Your task to perform on an android device: uninstall "VLC for Android" Image 0: 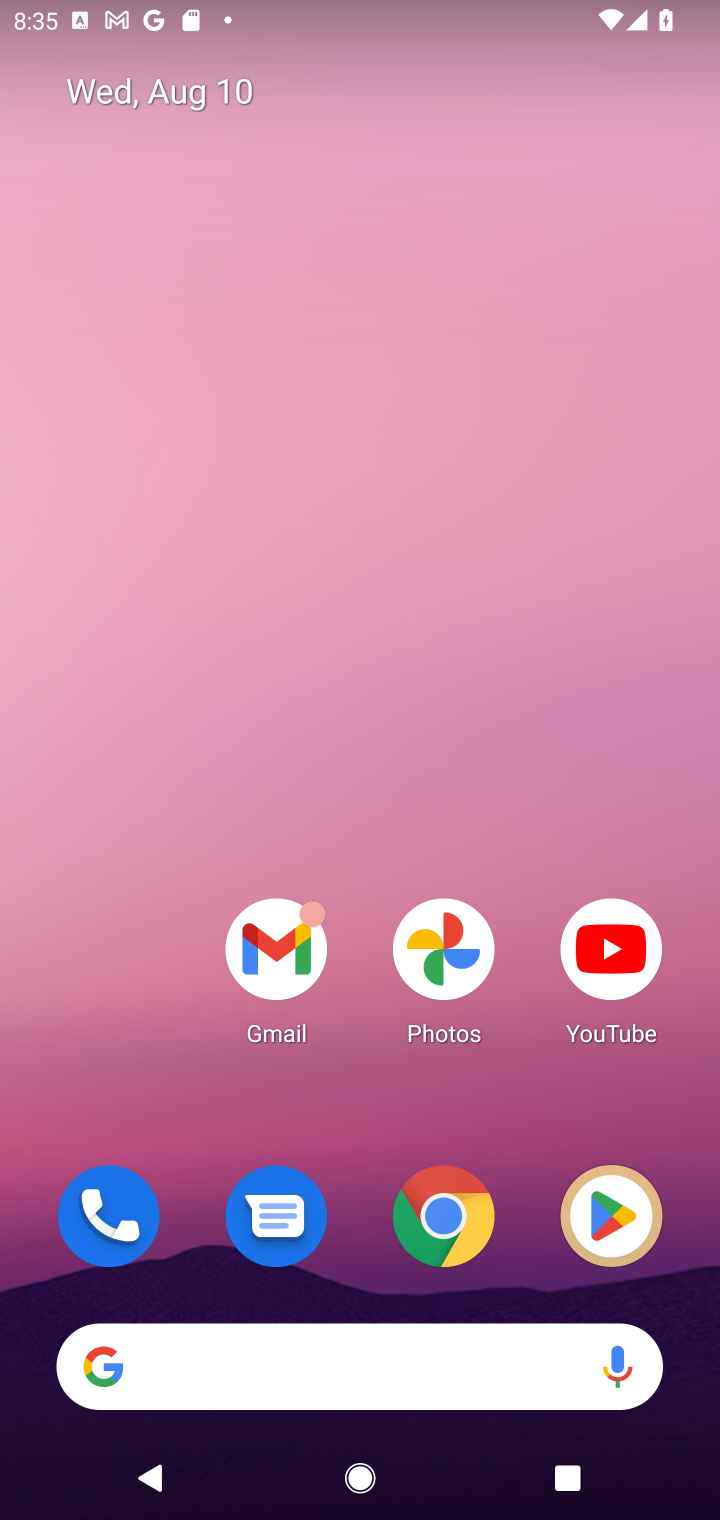
Step 0: click (600, 1224)
Your task to perform on an android device: uninstall "VLC for Android" Image 1: 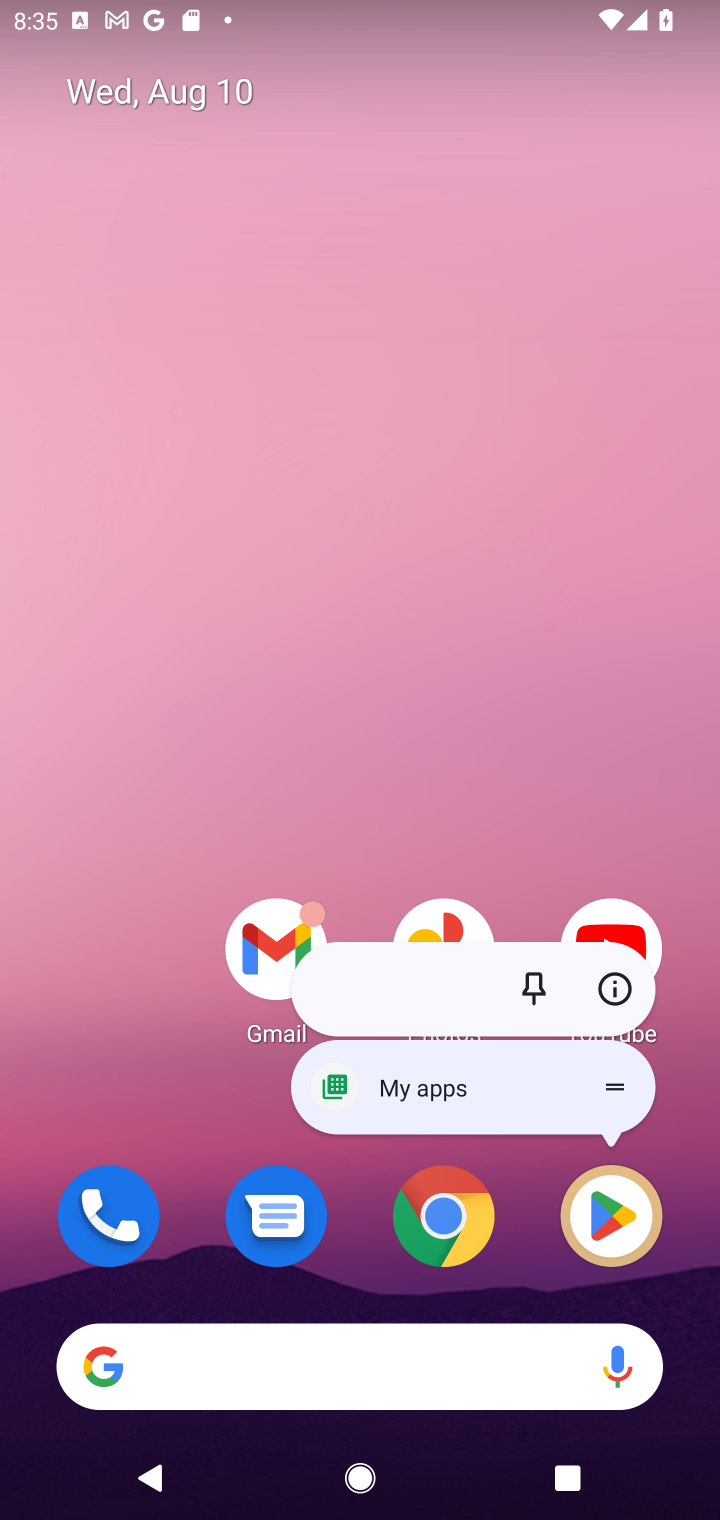
Step 1: click (606, 1232)
Your task to perform on an android device: uninstall "VLC for Android" Image 2: 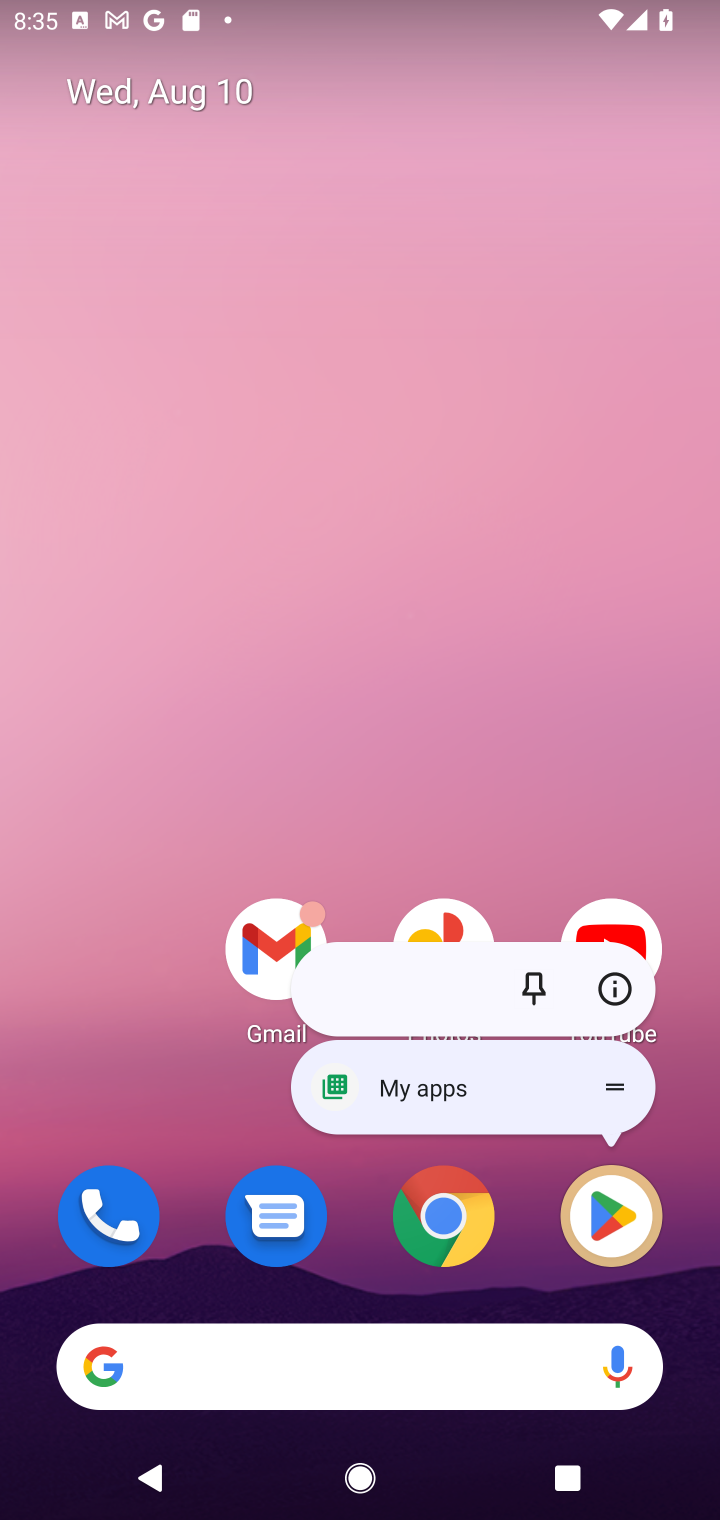
Step 2: click (606, 1232)
Your task to perform on an android device: uninstall "VLC for Android" Image 3: 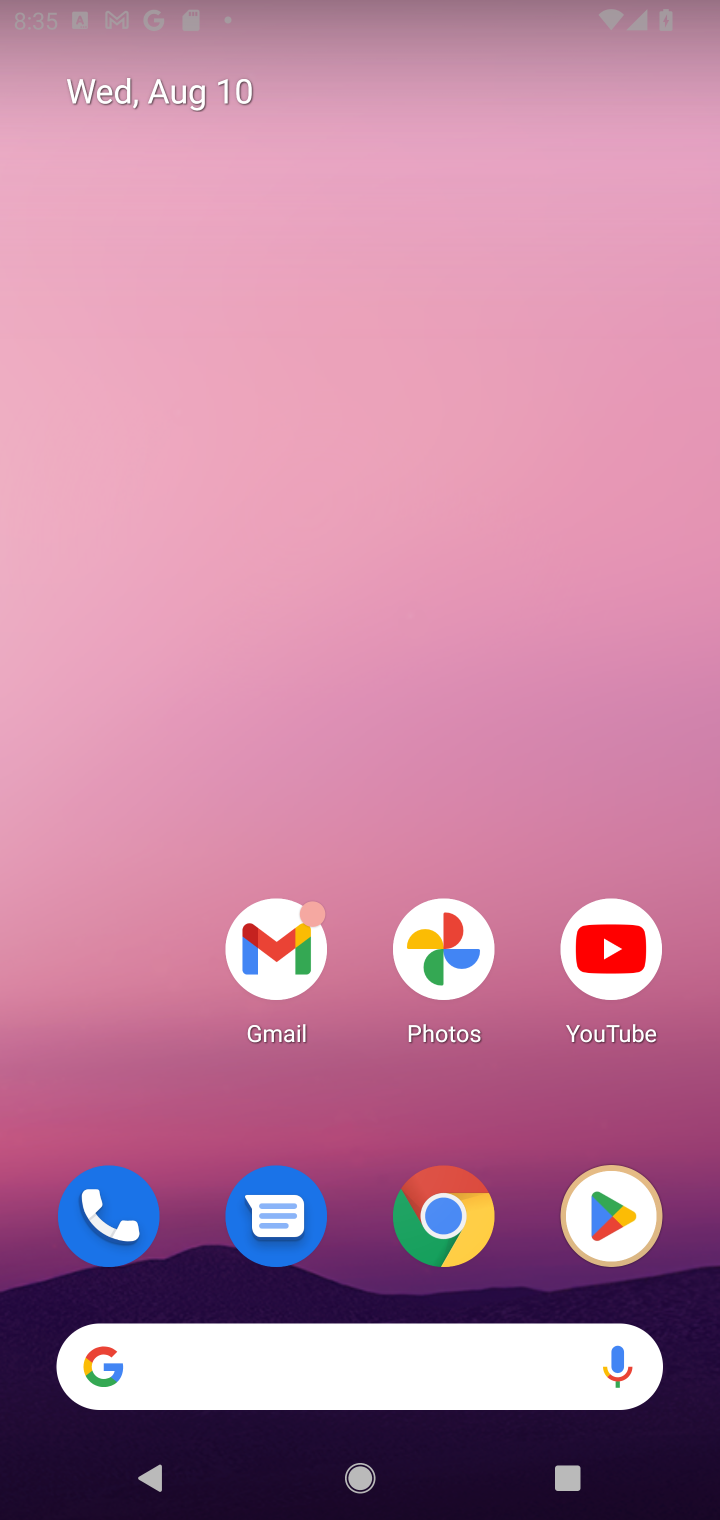
Step 3: click (606, 1232)
Your task to perform on an android device: uninstall "VLC for Android" Image 4: 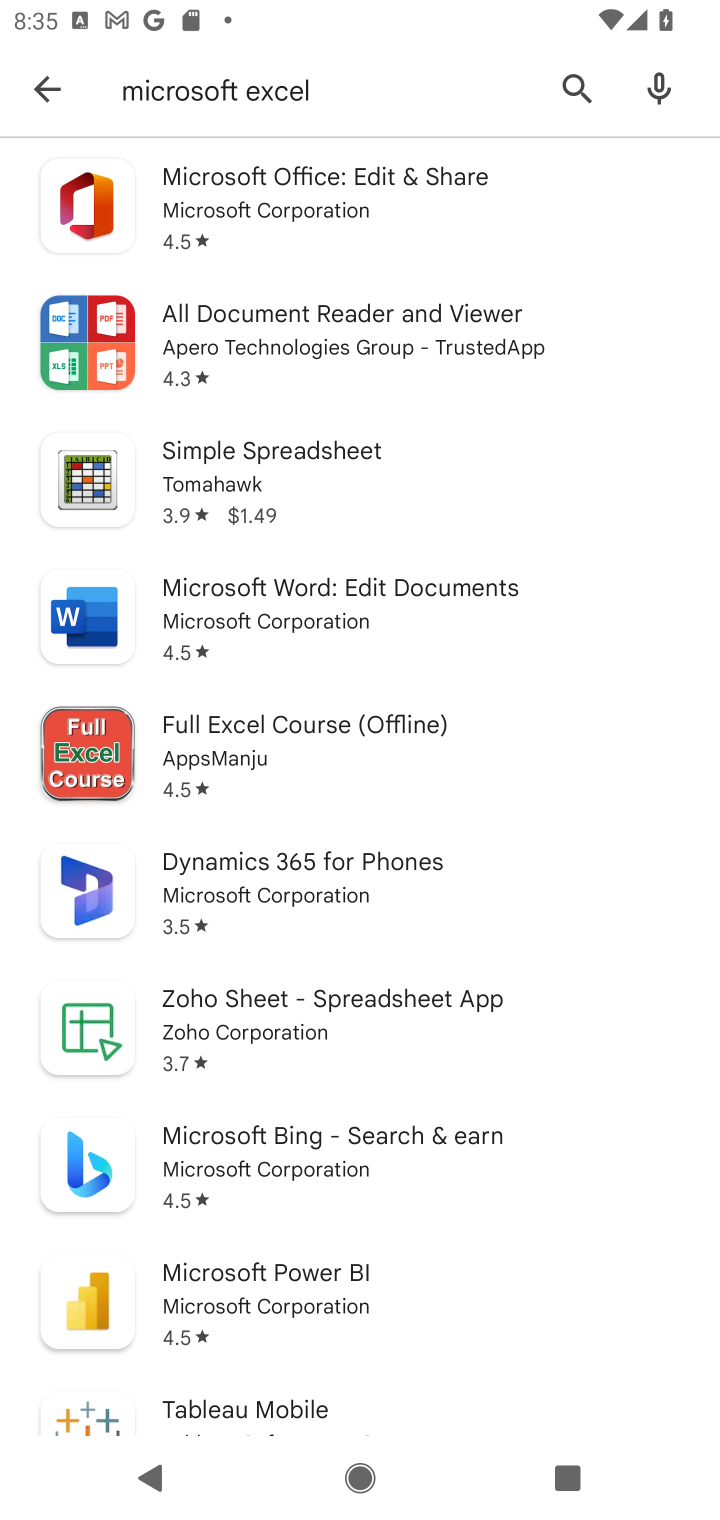
Step 4: click (41, 88)
Your task to perform on an android device: uninstall "VLC for Android" Image 5: 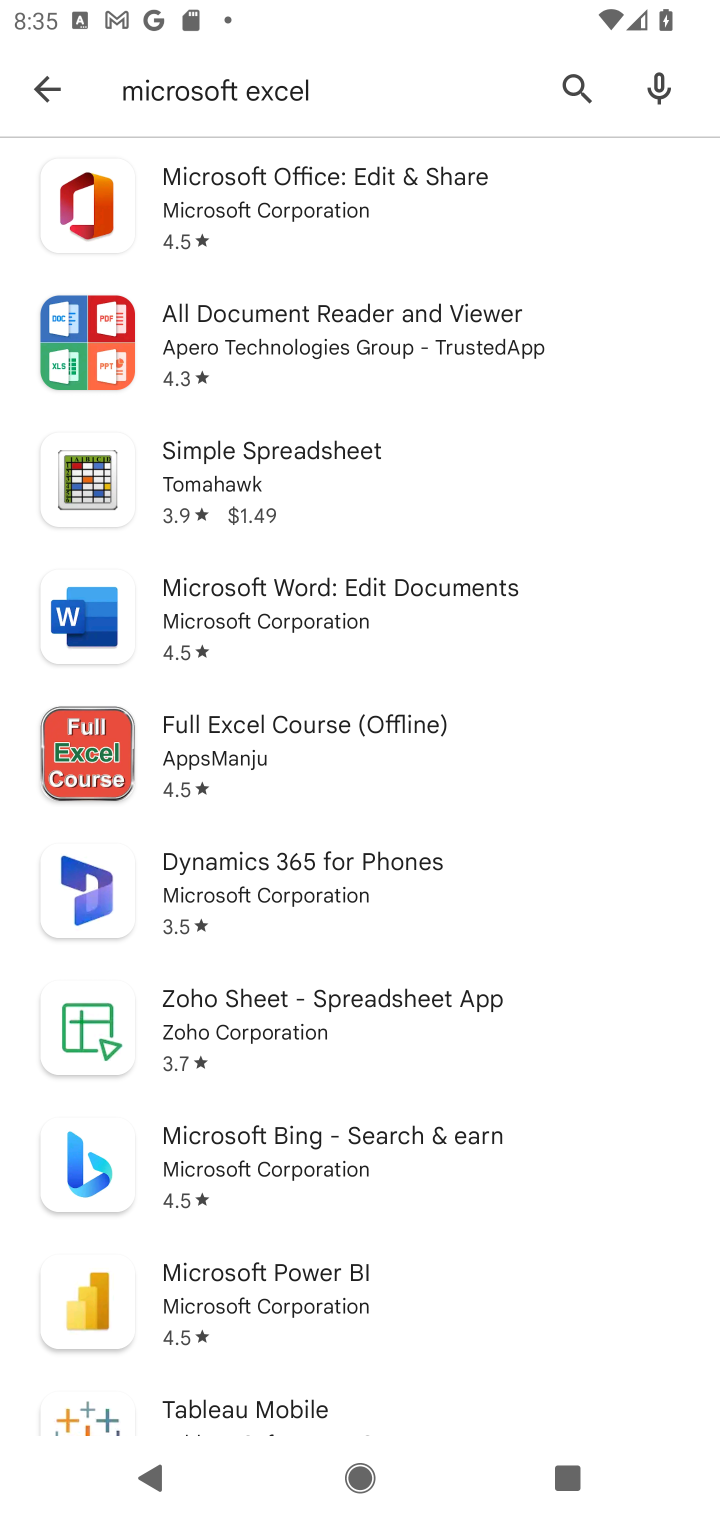
Step 5: click (45, 93)
Your task to perform on an android device: uninstall "VLC for Android" Image 6: 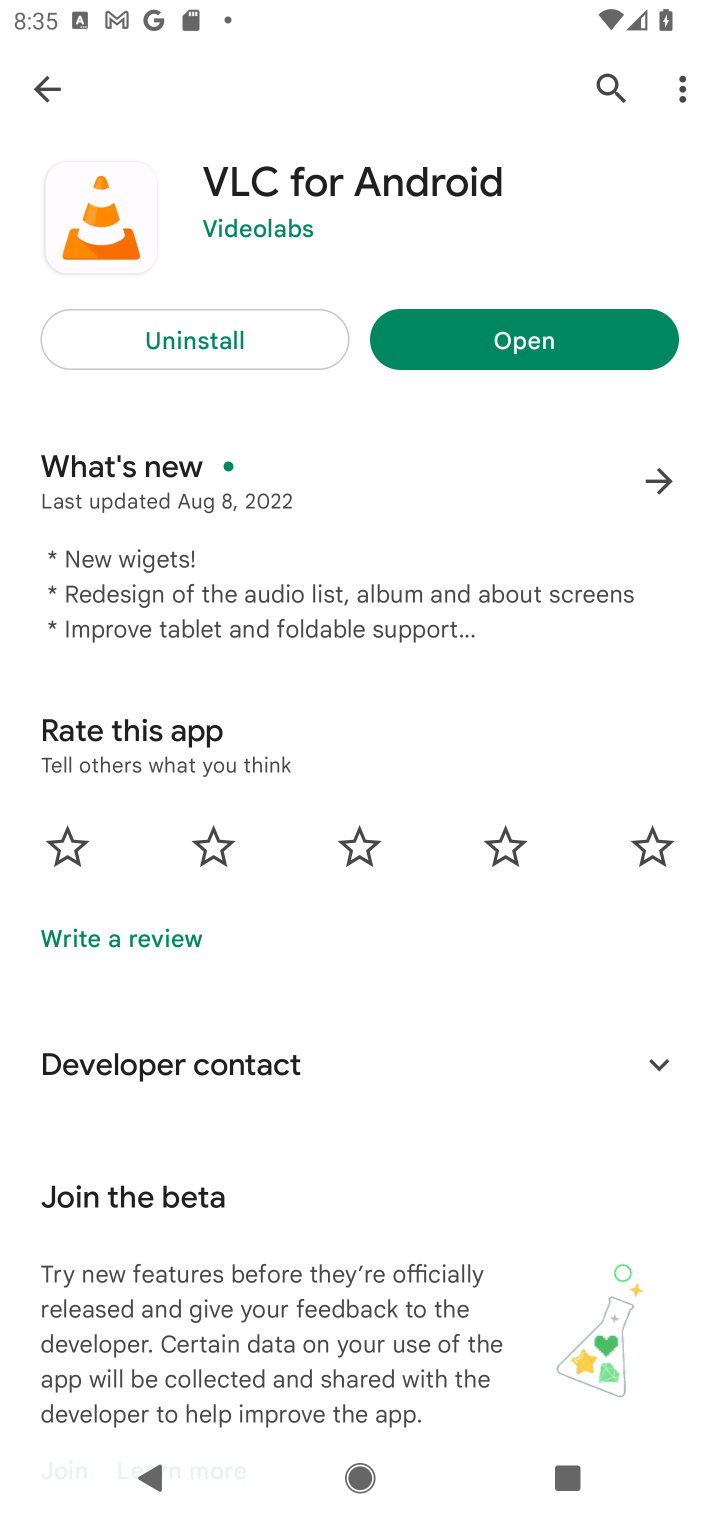
Step 6: click (623, 82)
Your task to perform on an android device: uninstall "VLC for Android" Image 7: 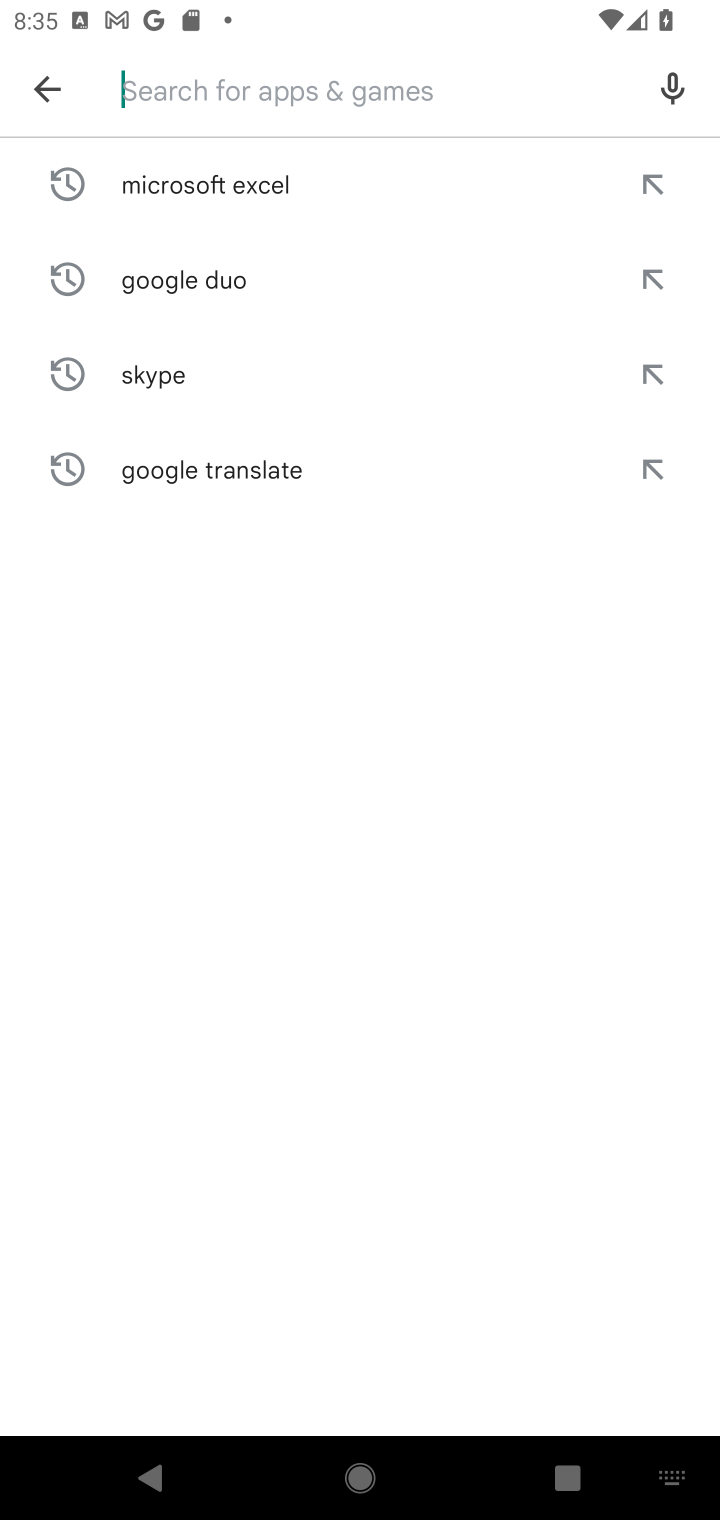
Step 7: click (186, 90)
Your task to perform on an android device: uninstall "VLC for Android" Image 8: 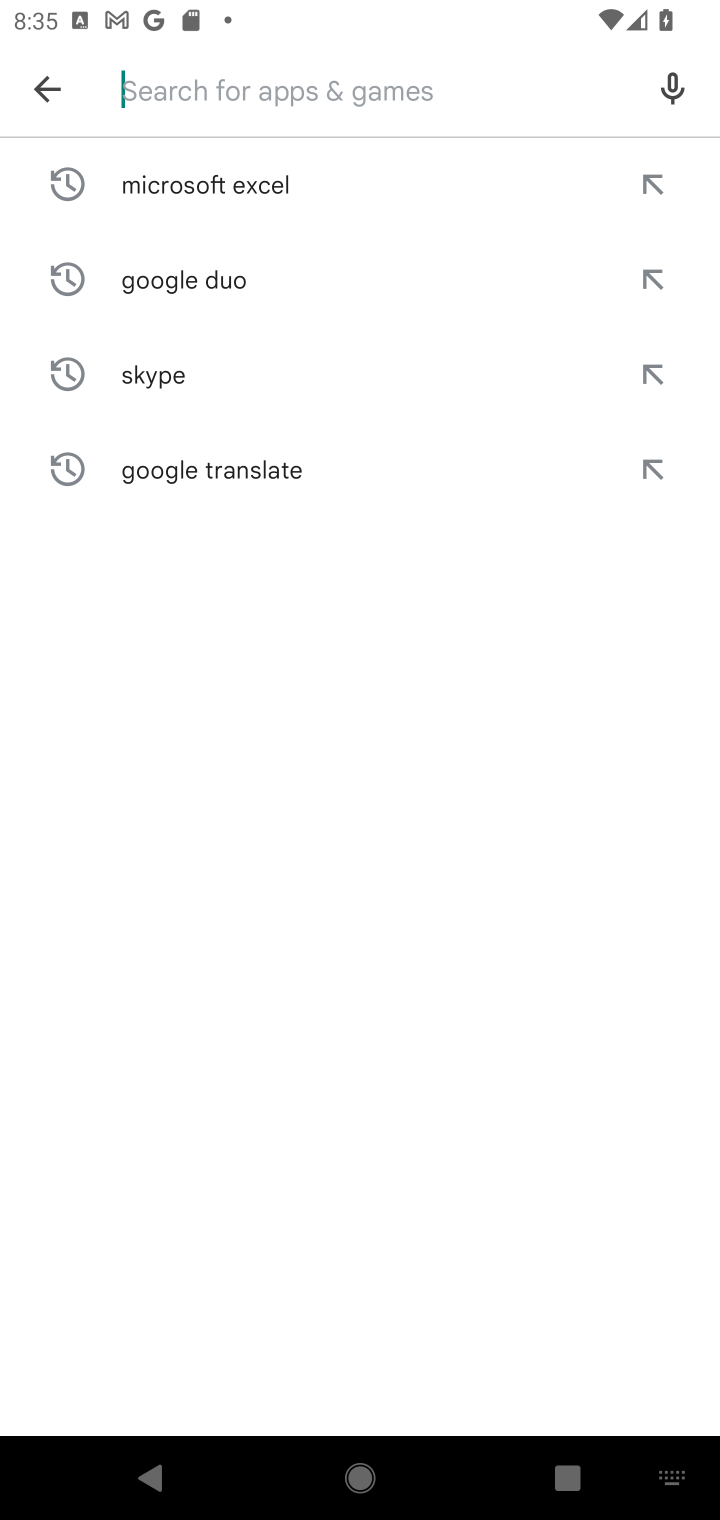
Step 8: type "VLC for Android"
Your task to perform on an android device: uninstall "VLC for Android" Image 9: 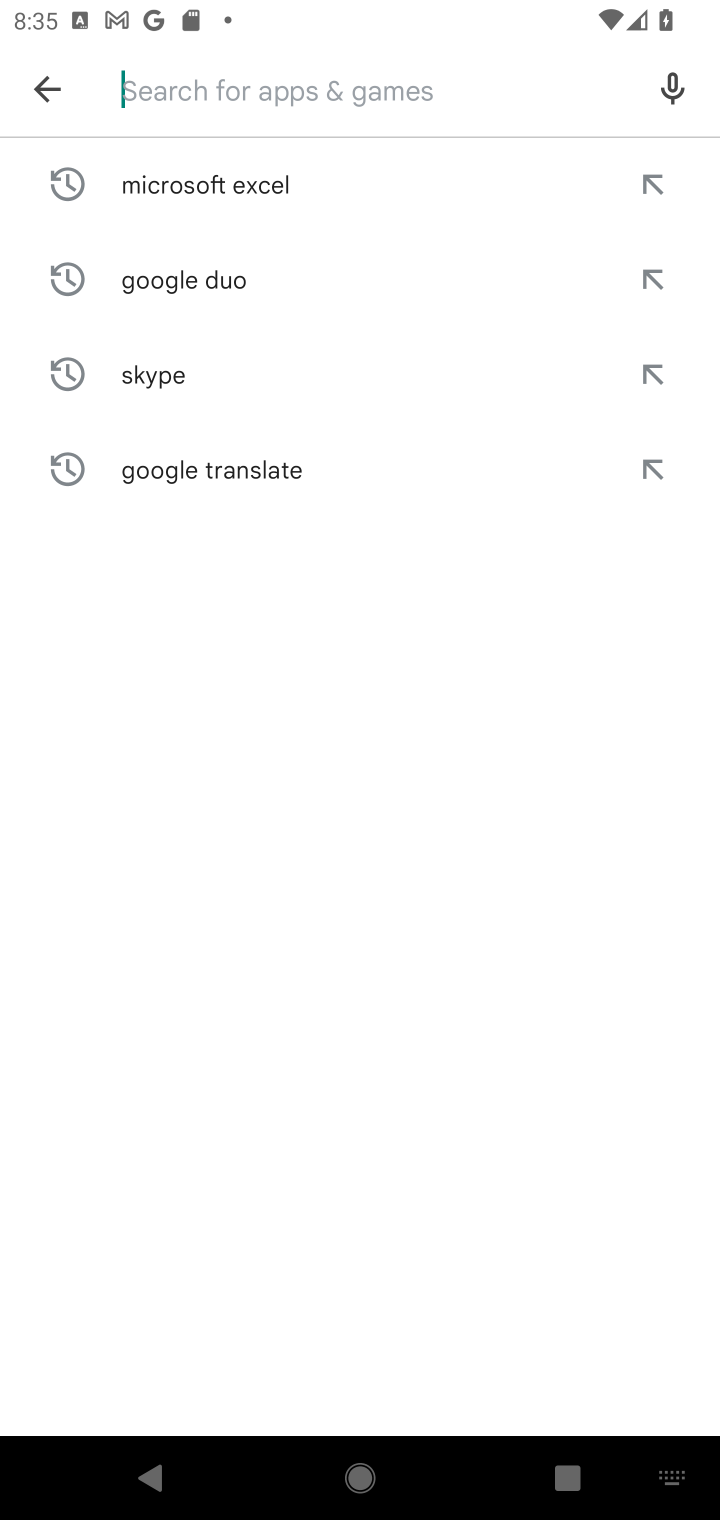
Step 9: click (473, 740)
Your task to perform on an android device: uninstall "VLC for Android" Image 10: 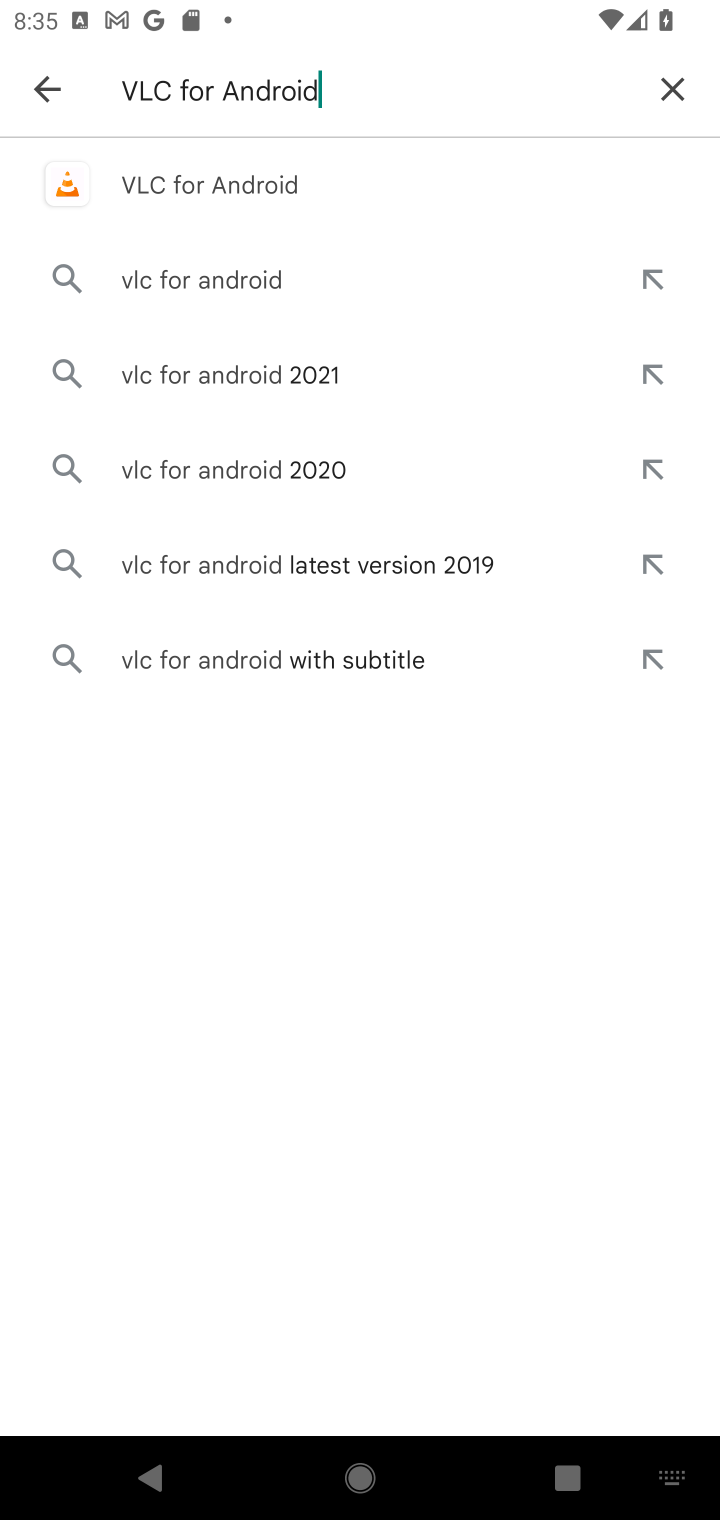
Step 10: click (290, 157)
Your task to perform on an android device: uninstall "VLC for Android" Image 11: 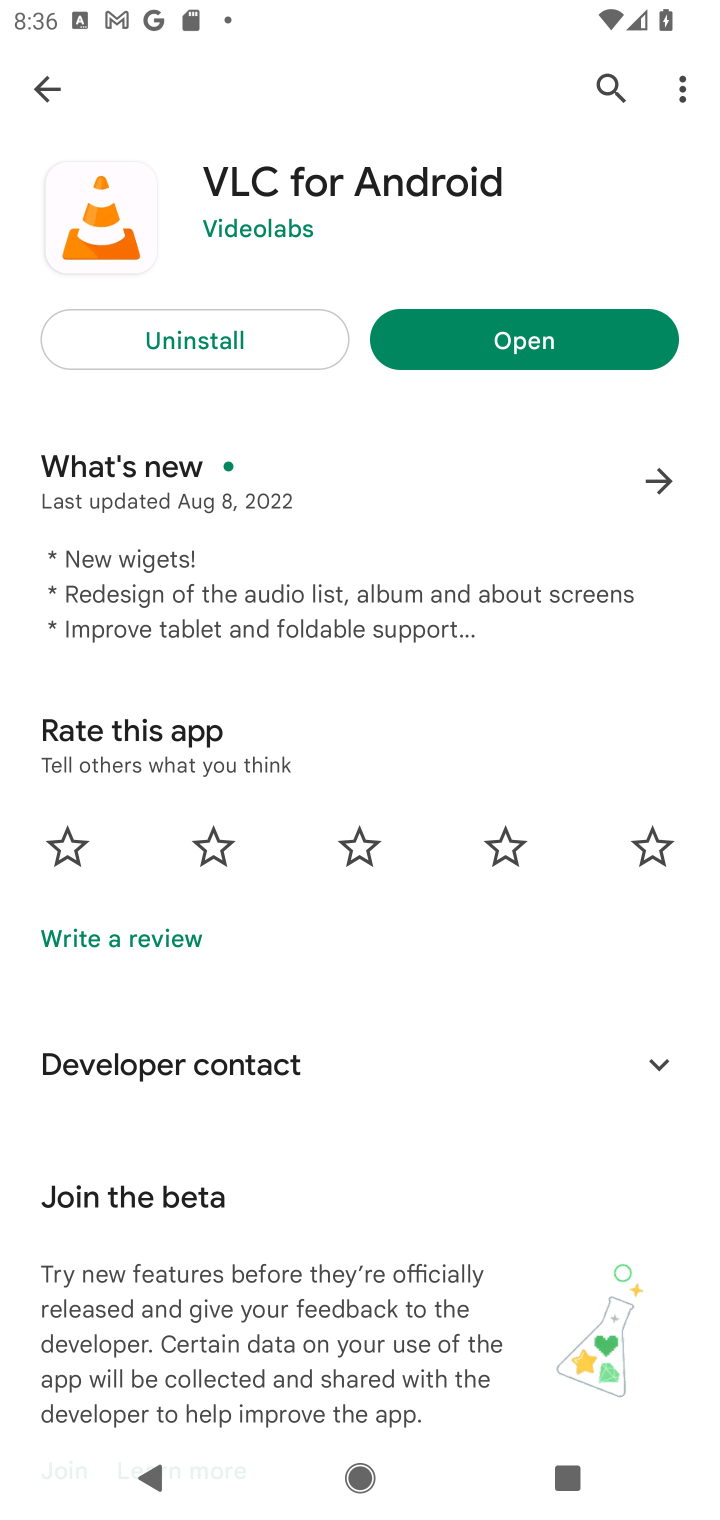
Step 11: click (216, 340)
Your task to perform on an android device: uninstall "VLC for Android" Image 12: 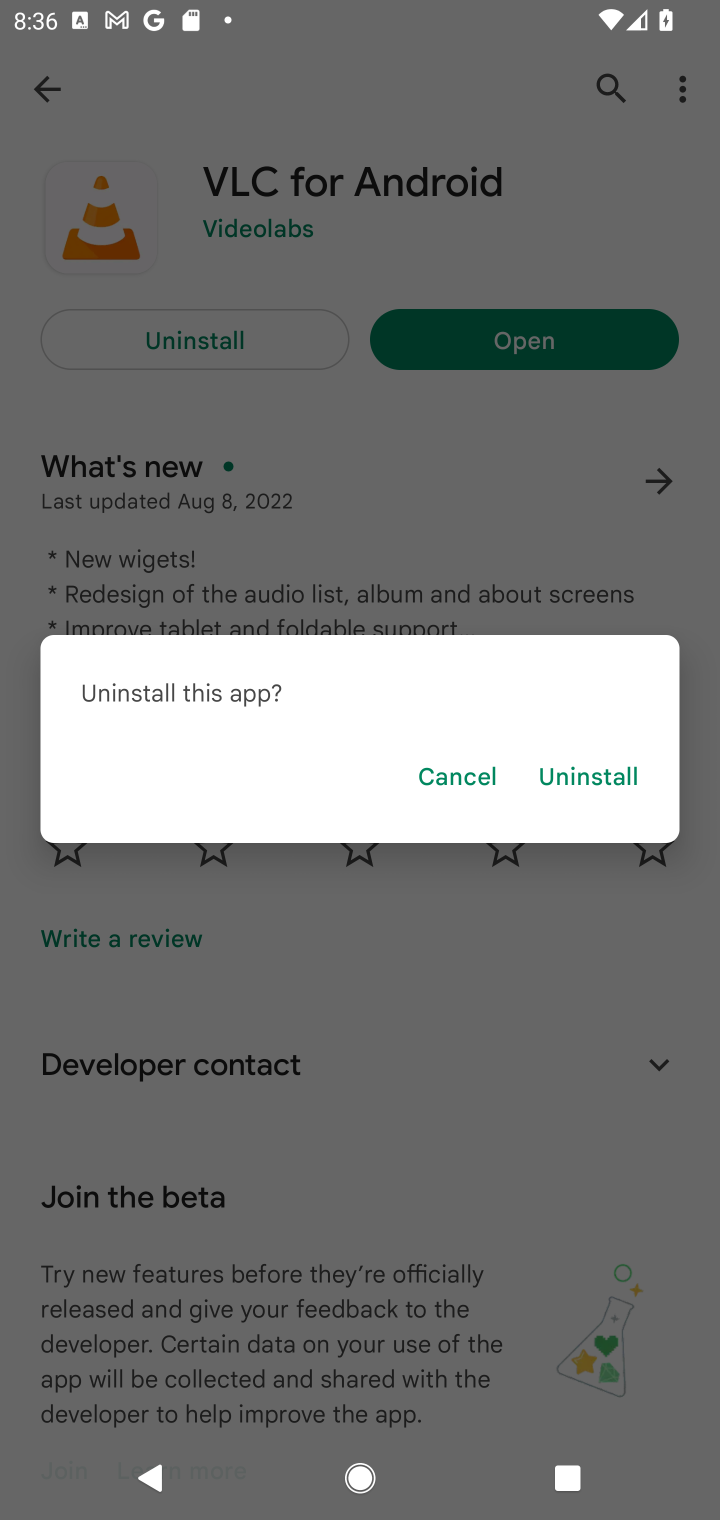
Step 12: click (561, 772)
Your task to perform on an android device: uninstall "VLC for Android" Image 13: 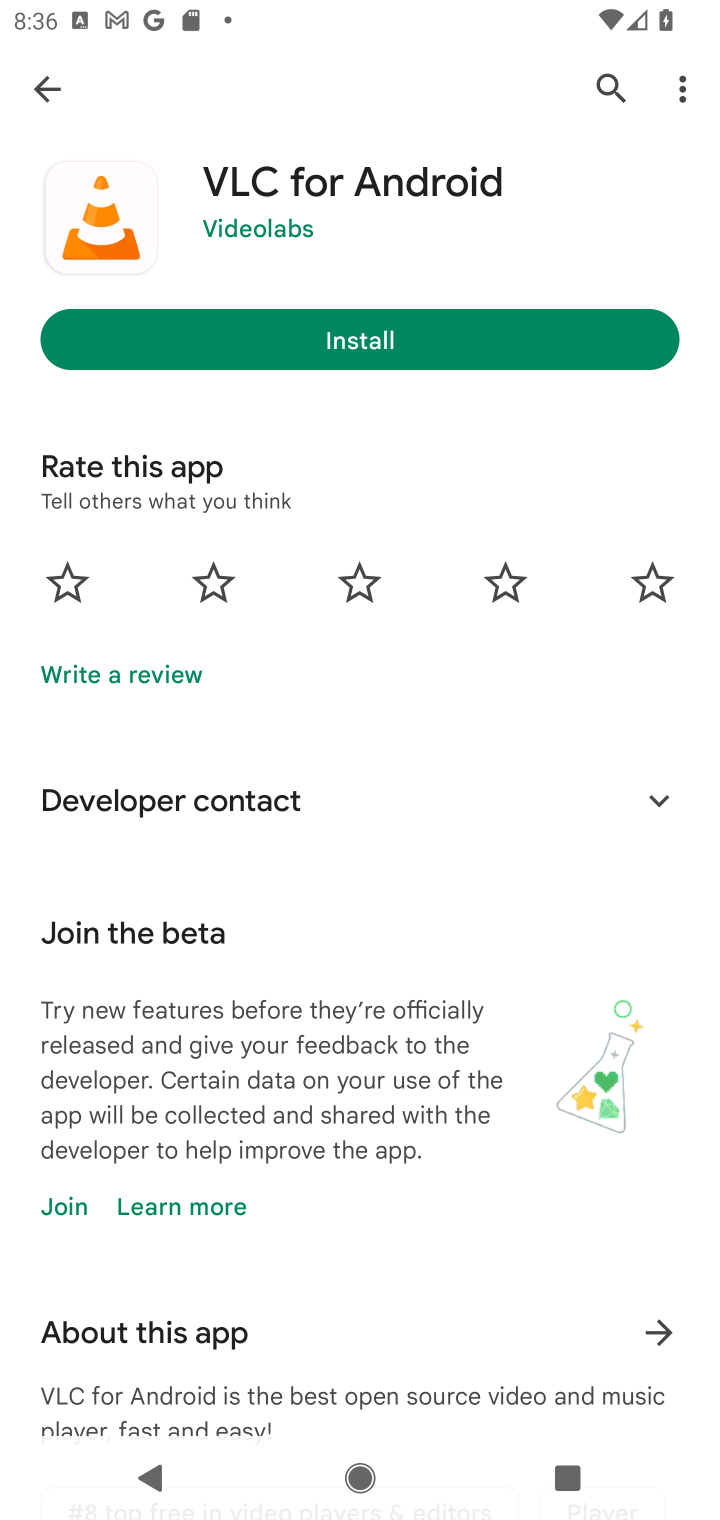
Step 13: task complete